Your task to perform on an android device: change the clock display to show seconds Image 0: 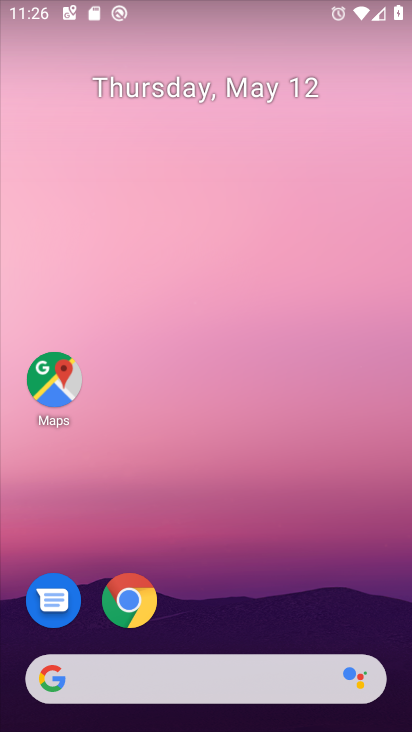
Step 0: drag from (210, 619) to (179, 130)
Your task to perform on an android device: change the clock display to show seconds Image 1: 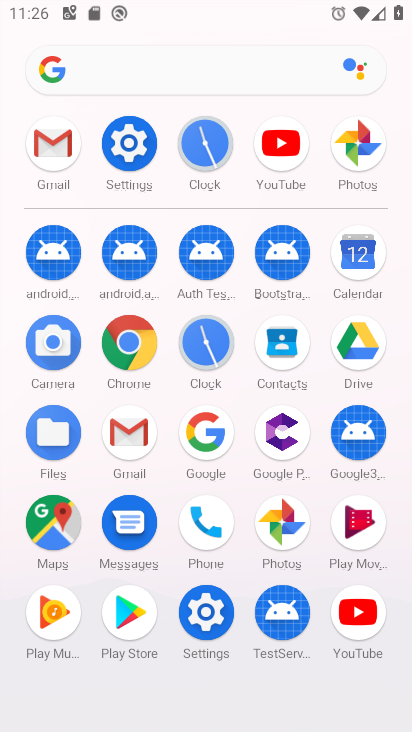
Step 1: click (208, 144)
Your task to perform on an android device: change the clock display to show seconds Image 2: 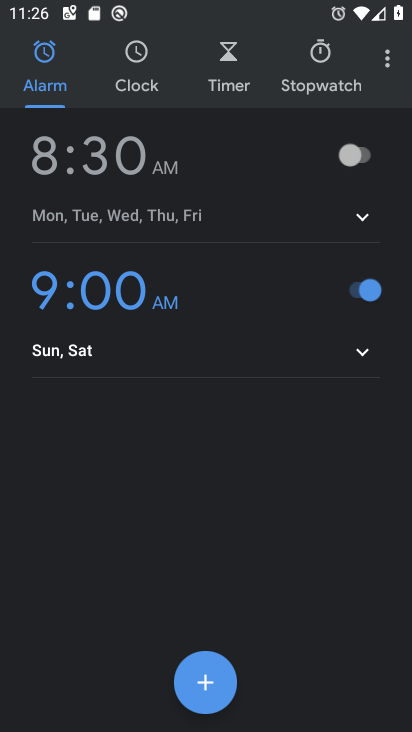
Step 2: click (393, 59)
Your task to perform on an android device: change the clock display to show seconds Image 3: 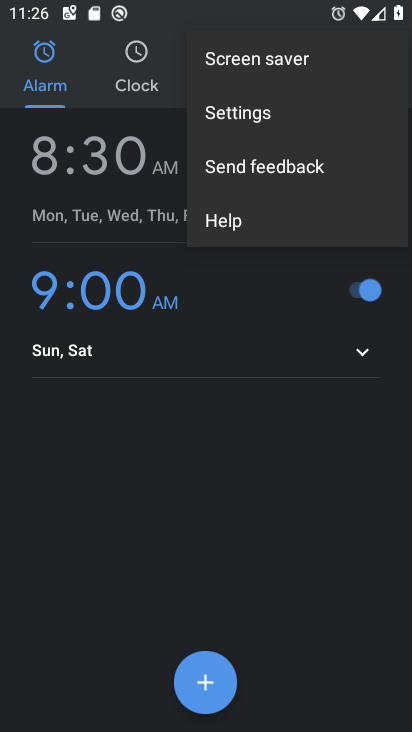
Step 3: click (237, 109)
Your task to perform on an android device: change the clock display to show seconds Image 4: 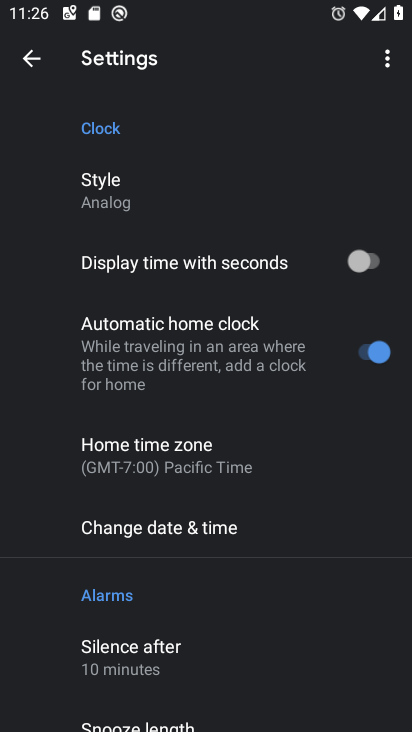
Step 4: click (364, 254)
Your task to perform on an android device: change the clock display to show seconds Image 5: 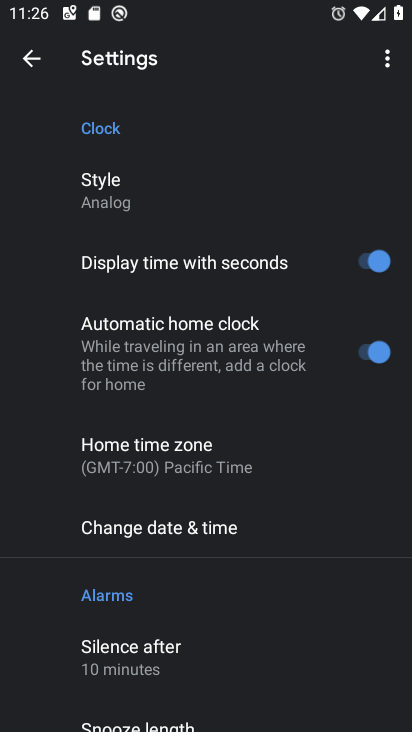
Step 5: task complete